Your task to perform on an android device: empty trash in google photos Image 0: 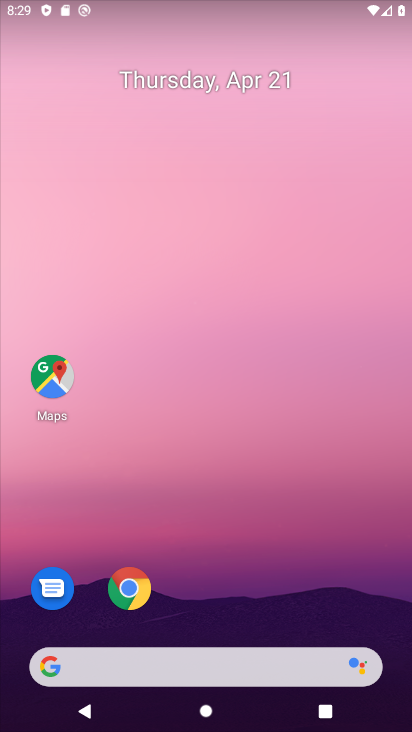
Step 0: drag from (261, 492) to (169, 0)
Your task to perform on an android device: empty trash in google photos Image 1: 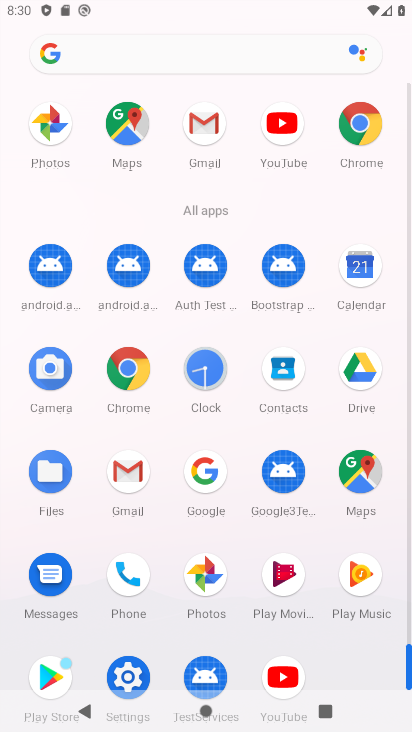
Step 1: click (204, 571)
Your task to perform on an android device: empty trash in google photos Image 2: 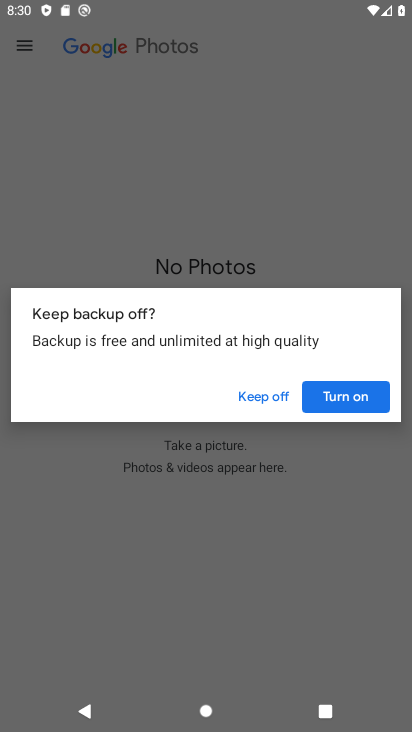
Step 2: click (342, 398)
Your task to perform on an android device: empty trash in google photos Image 3: 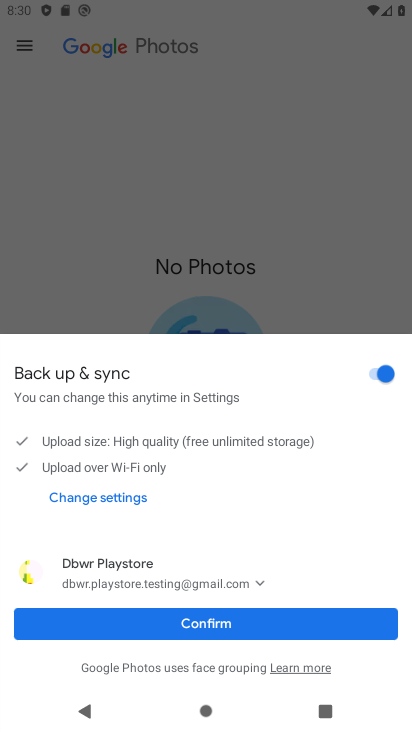
Step 3: click (203, 624)
Your task to perform on an android device: empty trash in google photos Image 4: 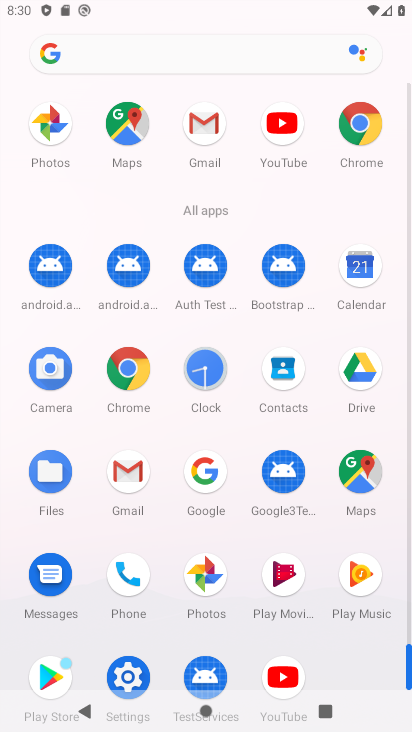
Step 4: click (201, 569)
Your task to perform on an android device: empty trash in google photos Image 5: 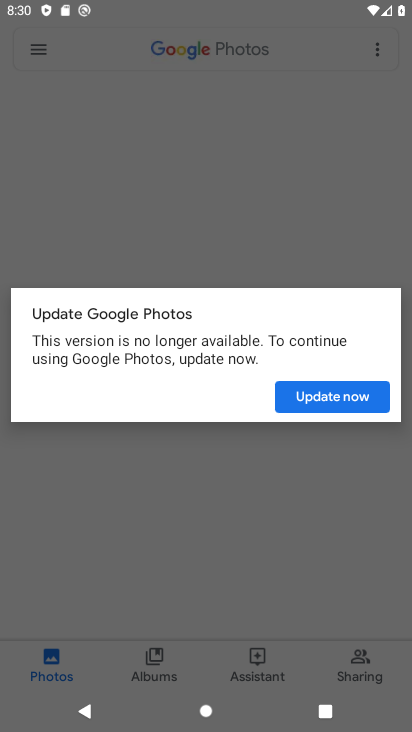
Step 5: click (335, 399)
Your task to perform on an android device: empty trash in google photos Image 6: 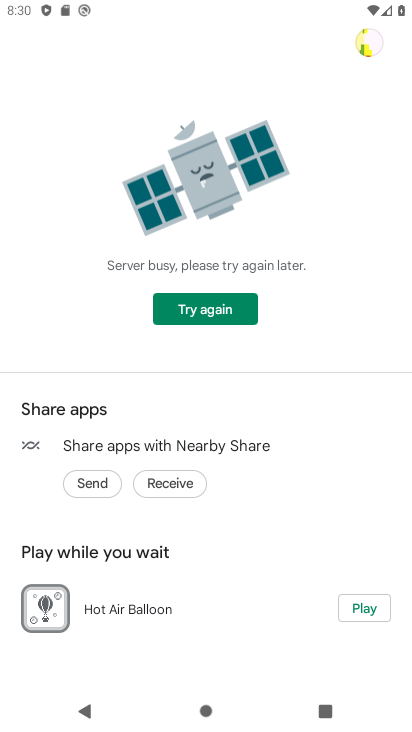
Step 6: click (224, 307)
Your task to perform on an android device: empty trash in google photos Image 7: 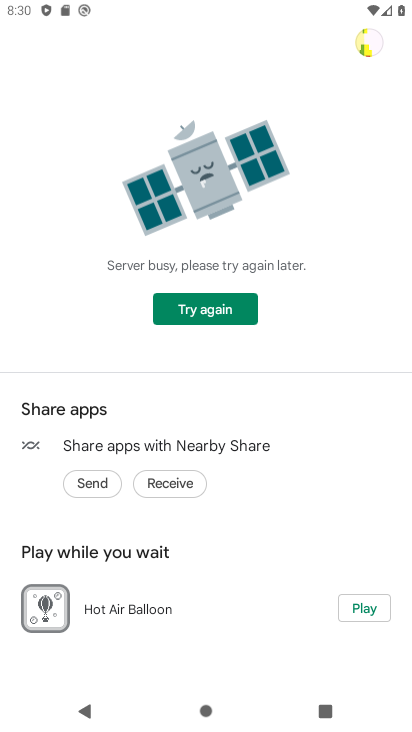
Step 7: click (226, 305)
Your task to perform on an android device: empty trash in google photos Image 8: 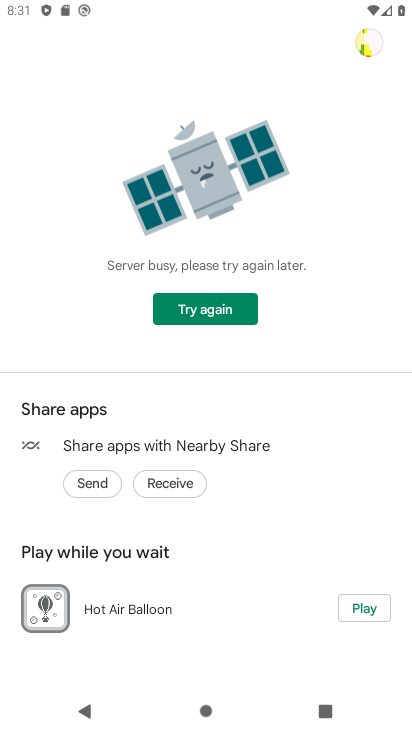
Step 8: task complete